Your task to perform on an android device: stop showing notifications on the lock screen Image 0: 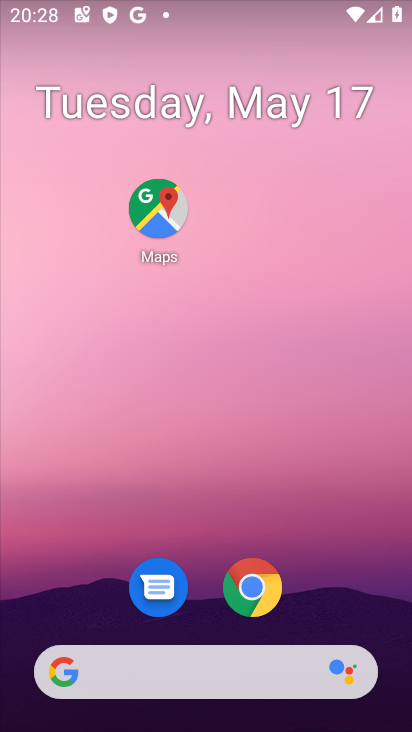
Step 0: drag from (29, 537) to (193, 178)
Your task to perform on an android device: stop showing notifications on the lock screen Image 1: 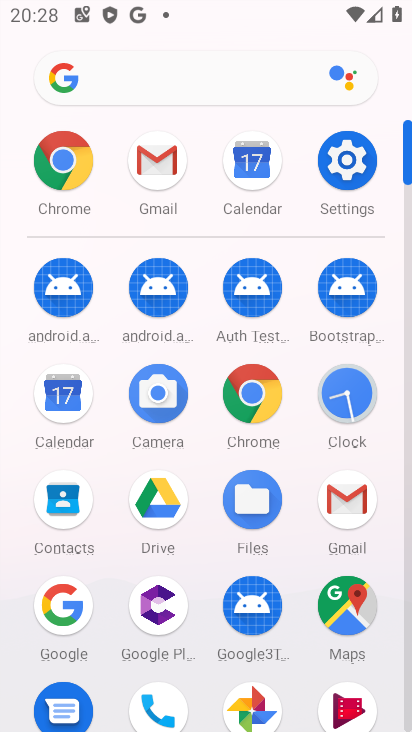
Step 1: click (339, 157)
Your task to perform on an android device: stop showing notifications on the lock screen Image 2: 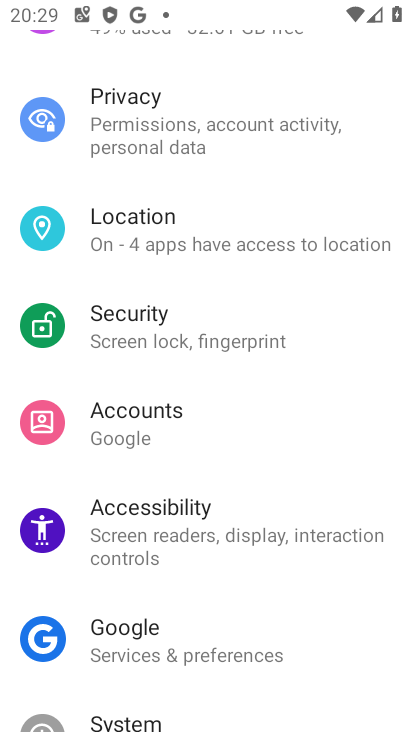
Step 2: drag from (179, 197) to (163, 533)
Your task to perform on an android device: stop showing notifications on the lock screen Image 3: 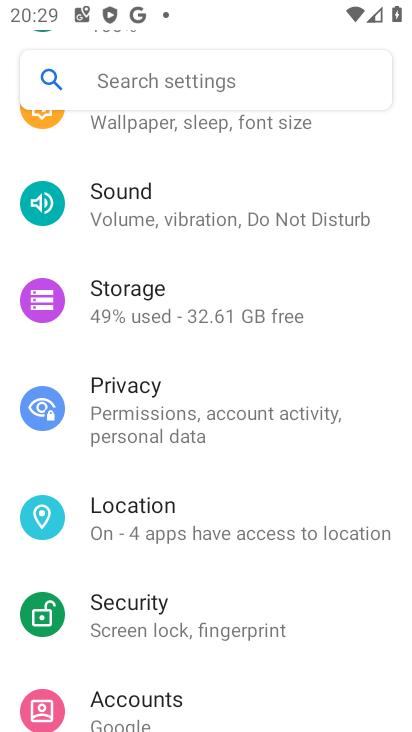
Step 3: drag from (228, 135) to (201, 490)
Your task to perform on an android device: stop showing notifications on the lock screen Image 4: 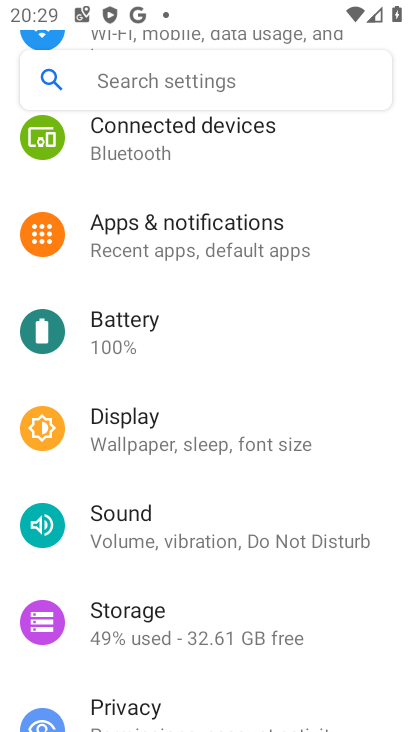
Step 4: click (204, 243)
Your task to perform on an android device: stop showing notifications on the lock screen Image 5: 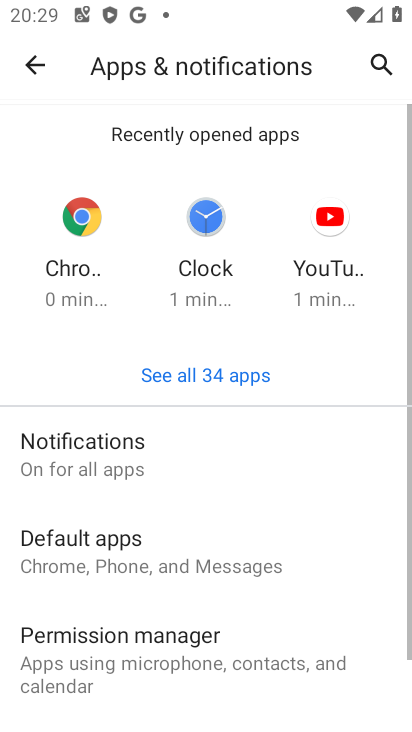
Step 5: drag from (11, 451) to (131, 224)
Your task to perform on an android device: stop showing notifications on the lock screen Image 6: 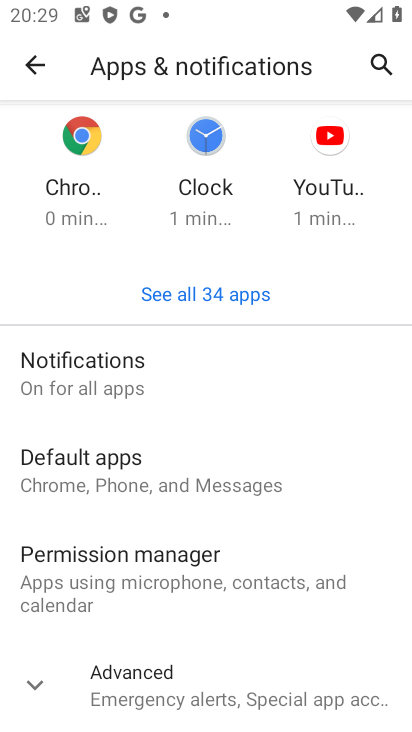
Step 6: click (109, 370)
Your task to perform on an android device: stop showing notifications on the lock screen Image 7: 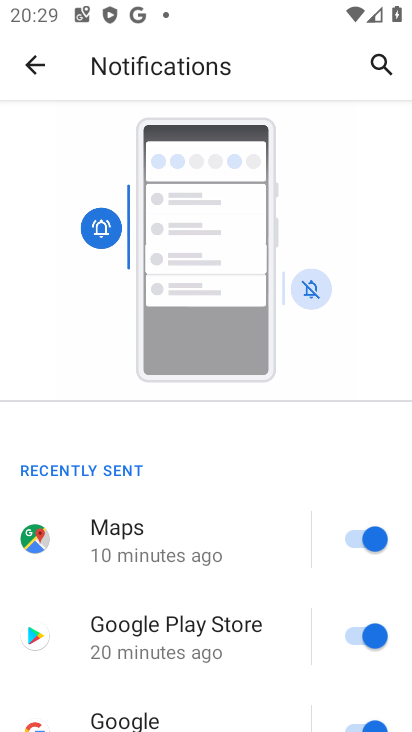
Step 7: drag from (136, 624) to (286, 173)
Your task to perform on an android device: stop showing notifications on the lock screen Image 8: 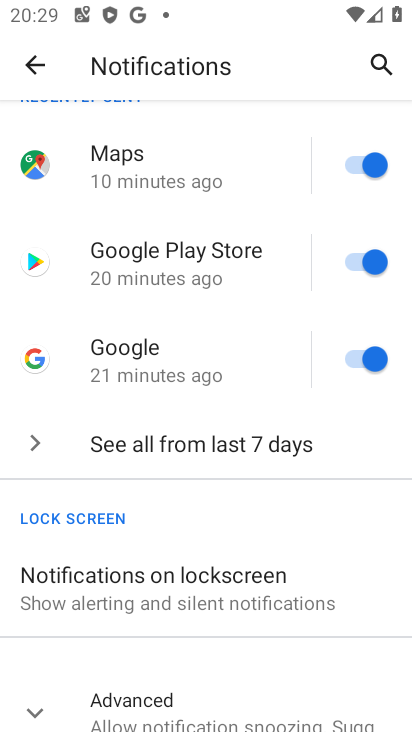
Step 8: click (219, 585)
Your task to perform on an android device: stop showing notifications on the lock screen Image 9: 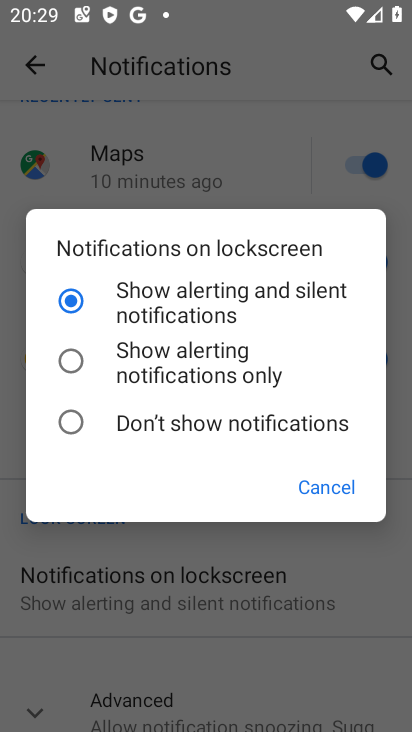
Step 9: click (79, 414)
Your task to perform on an android device: stop showing notifications on the lock screen Image 10: 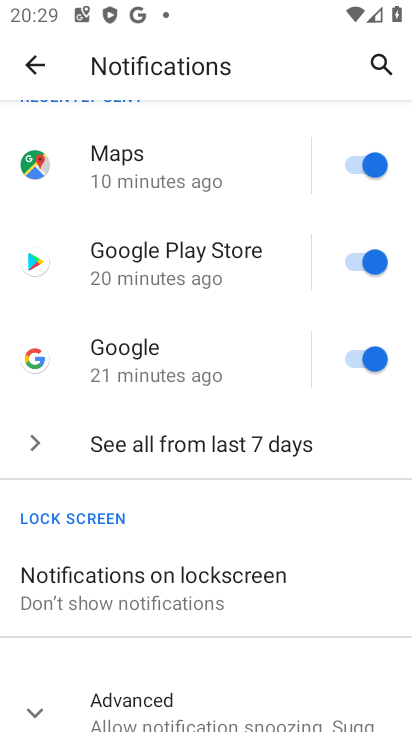
Step 10: task complete